Your task to perform on an android device: open wifi settings Image 0: 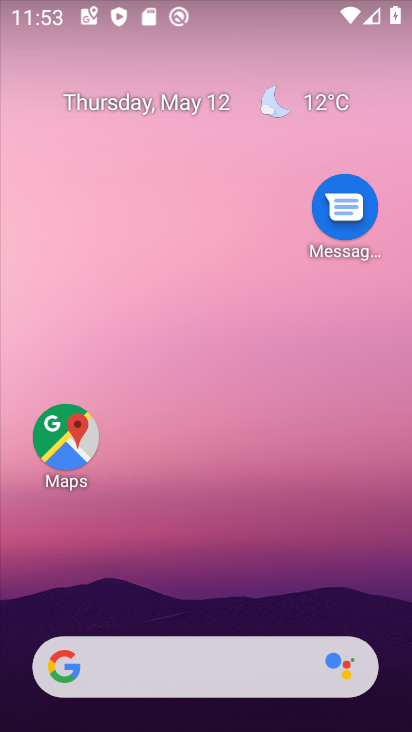
Step 0: drag from (262, 8) to (307, 442)
Your task to perform on an android device: open wifi settings Image 1: 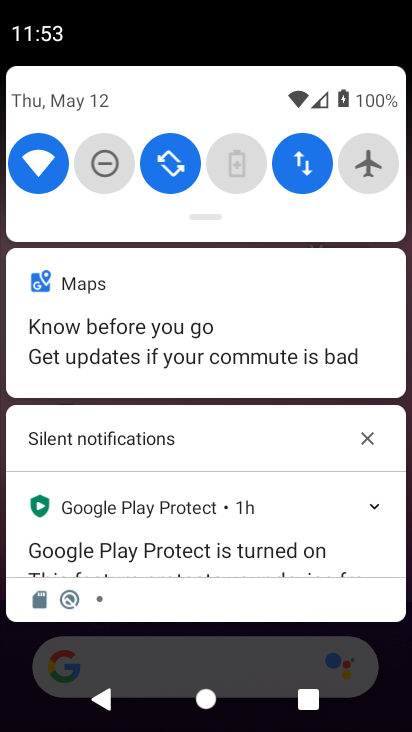
Step 1: click (55, 177)
Your task to perform on an android device: open wifi settings Image 2: 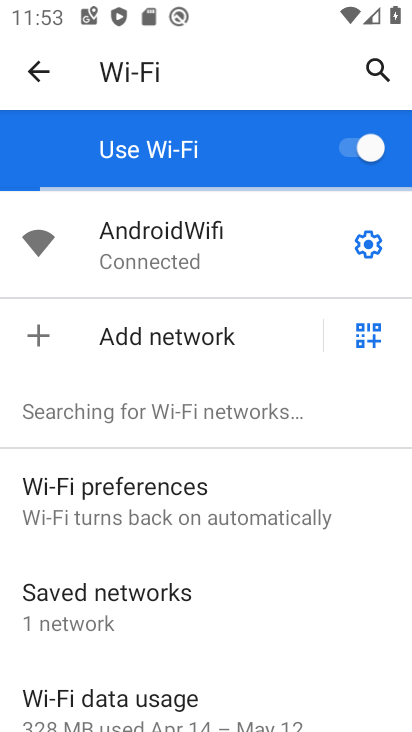
Step 2: task complete